Your task to perform on an android device: refresh tabs in the chrome app Image 0: 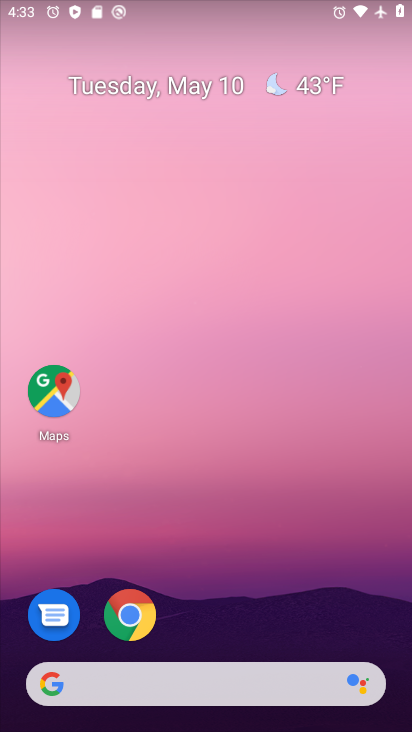
Step 0: drag from (319, 609) to (240, 46)
Your task to perform on an android device: refresh tabs in the chrome app Image 1: 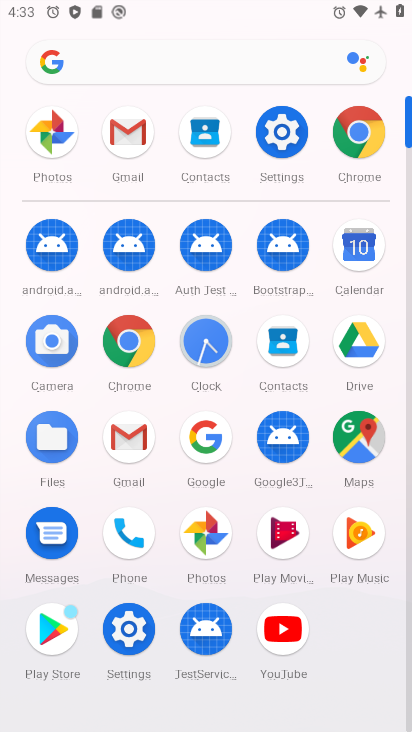
Step 1: drag from (7, 541) to (0, 244)
Your task to perform on an android device: refresh tabs in the chrome app Image 2: 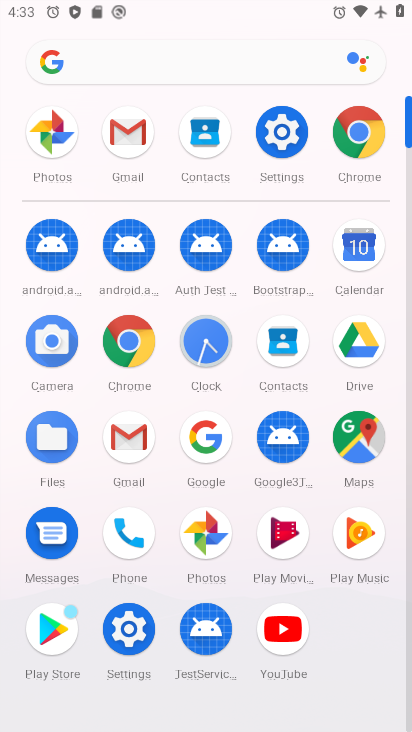
Step 2: click (125, 334)
Your task to perform on an android device: refresh tabs in the chrome app Image 3: 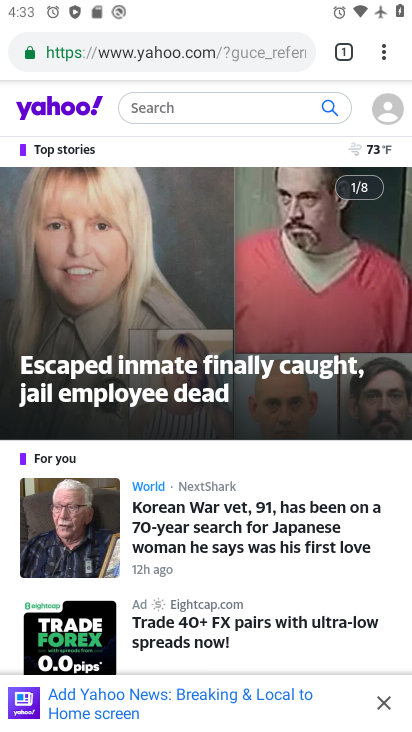
Step 3: drag from (388, 57) to (214, 650)
Your task to perform on an android device: refresh tabs in the chrome app Image 4: 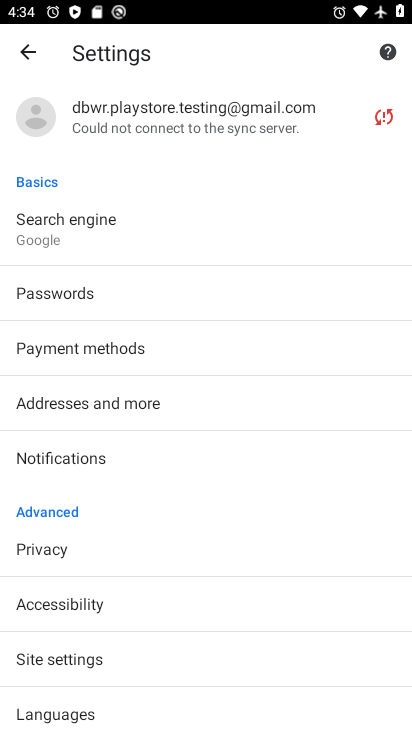
Step 4: click (23, 50)
Your task to perform on an android device: refresh tabs in the chrome app Image 5: 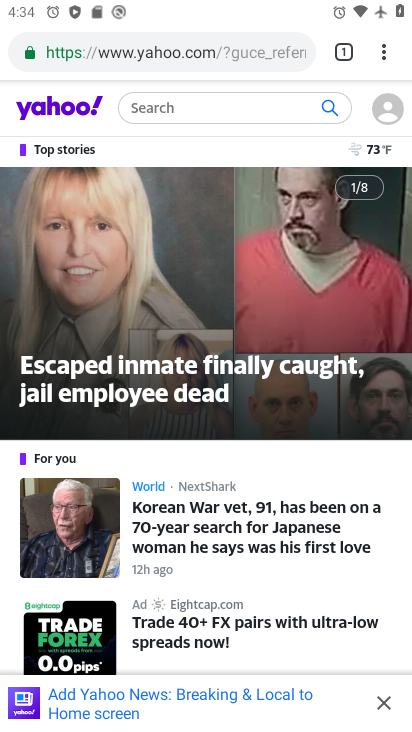
Step 5: click (375, 51)
Your task to perform on an android device: refresh tabs in the chrome app Image 6: 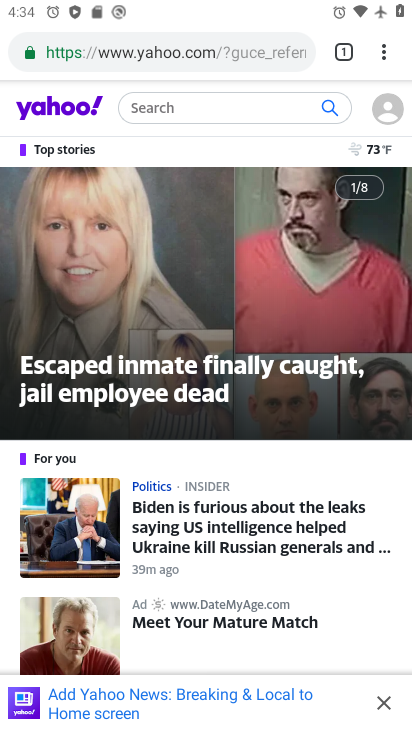
Step 6: task complete